Your task to perform on an android device: open a bookmark in the chrome app Image 0: 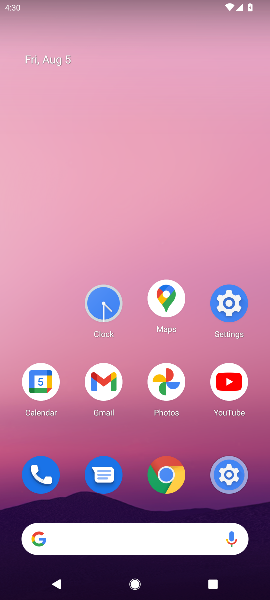
Step 0: click (170, 302)
Your task to perform on an android device: open a bookmark in the chrome app Image 1: 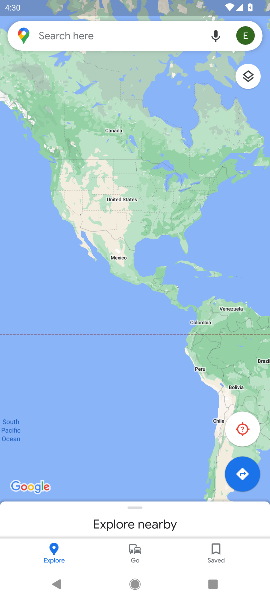
Step 1: press home button
Your task to perform on an android device: open a bookmark in the chrome app Image 2: 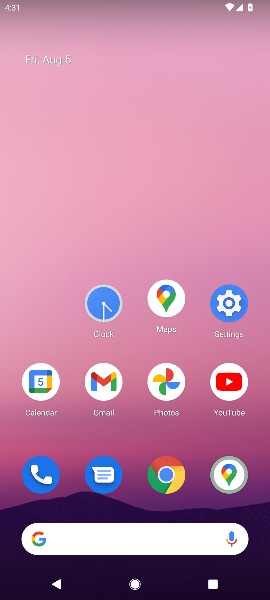
Step 2: click (169, 470)
Your task to perform on an android device: open a bookmark in the chrome app Image 3: 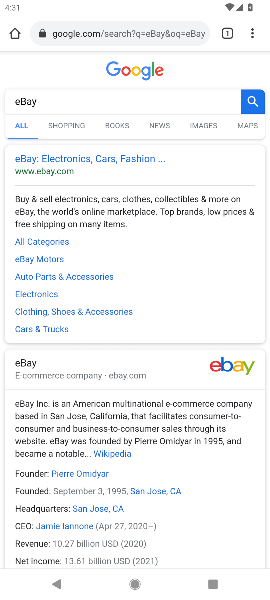
Step 3: click (254, 31)
Your task to perform on an android device: open a bookmark in the chrome app Image 4: 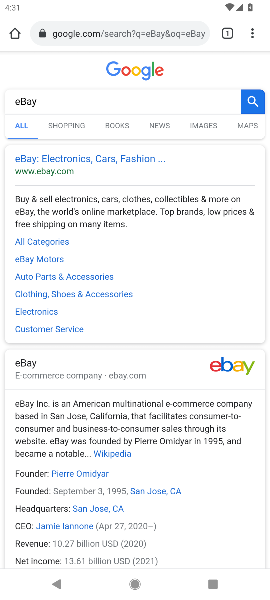
Step 4: click (254, 31)
Your task to perform on an android device: open a bookmark in the chrome app Image 5: 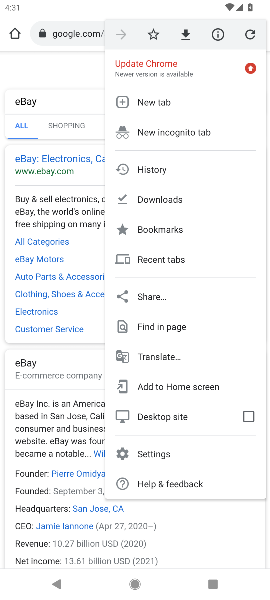
Step 5: click (166, 230)
Your task to perform on an android device: open a bookmark in the chrome app Image 6: 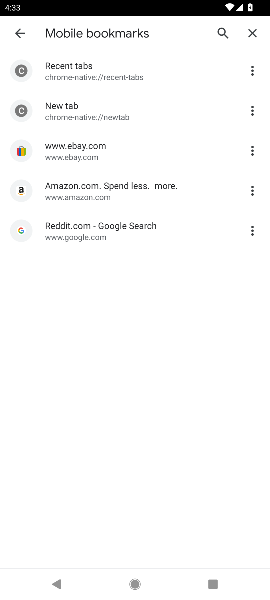
Step 6: click (92, 225)
Your task to perform on an android device: open a bookmark in the chrome app Image 7: 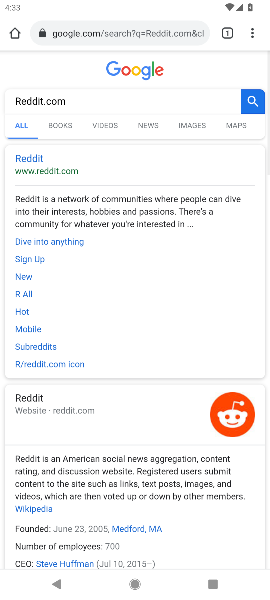
Step 7: task complete